Your task to perform on an android device: What's on my calendar today? Image 0: 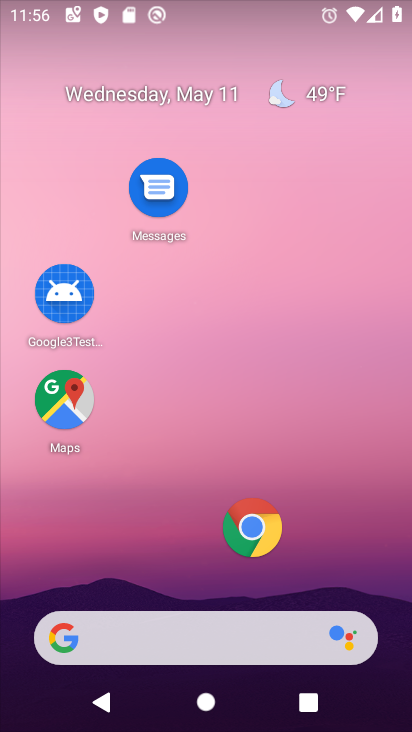
Step 0: drag from (274, 582) to (192, 31)
Your task to perform on an android device: What's on my calendar today? Image 1: 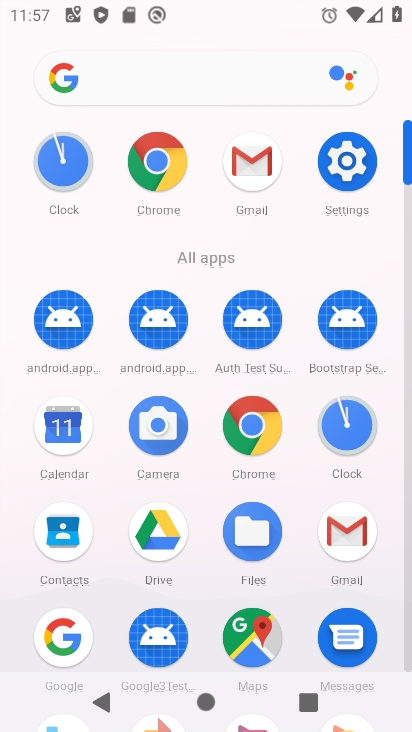
Step 1: click (66, 429)
Your task to perform on an android device: What's on my calendar today? Image 2: 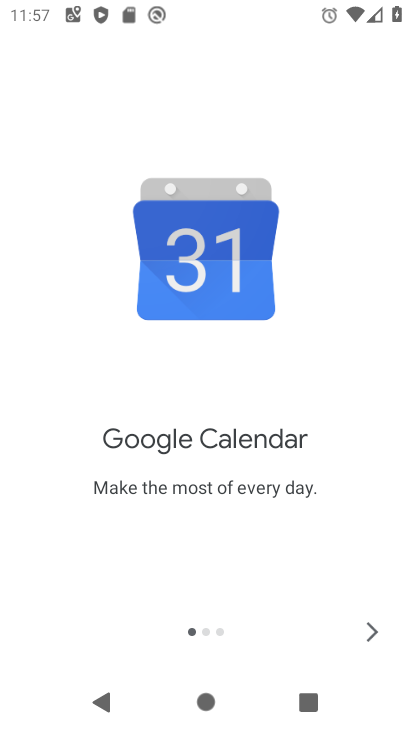
Step 2: click (368, 629)
Your task to perform on an android device: What's on my calendar today? Image 3: 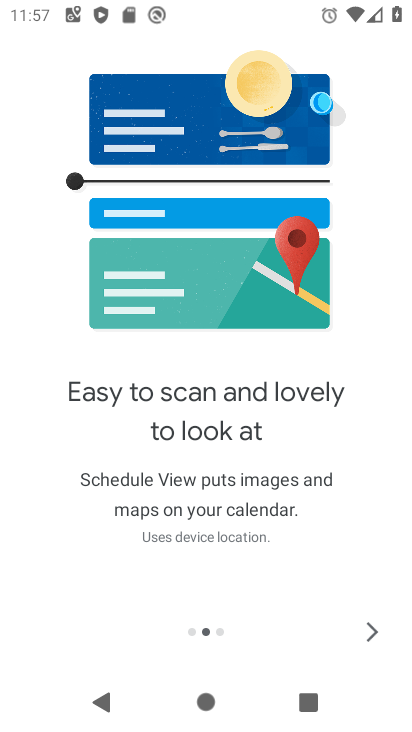
Step 3: click (373, 638)
Your task to perform on an android device: What's on my calendar today? Image 4: 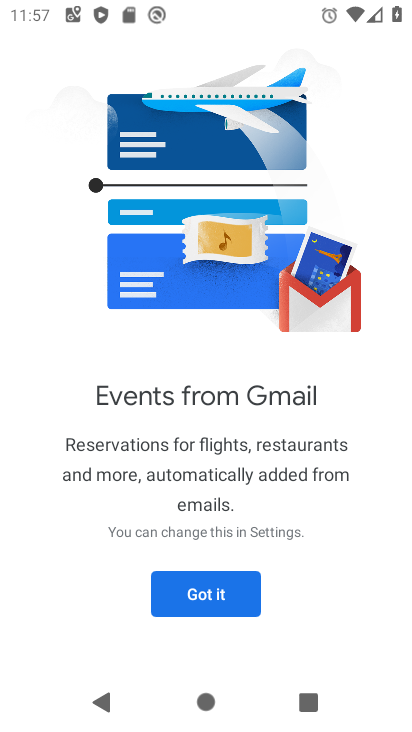
Step 4: click (207, 609)
Your task to perform on an android device: What's on my calendar today? Image 5: 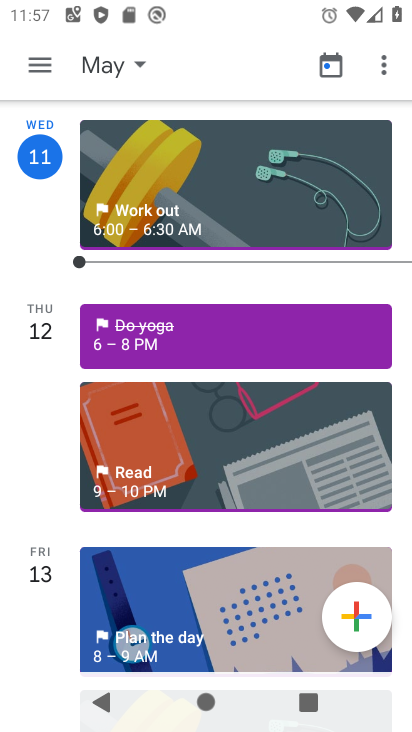
Step 5: click (44, 147)
Your task to perform on an android device: What's on my calendar today? Image 6: 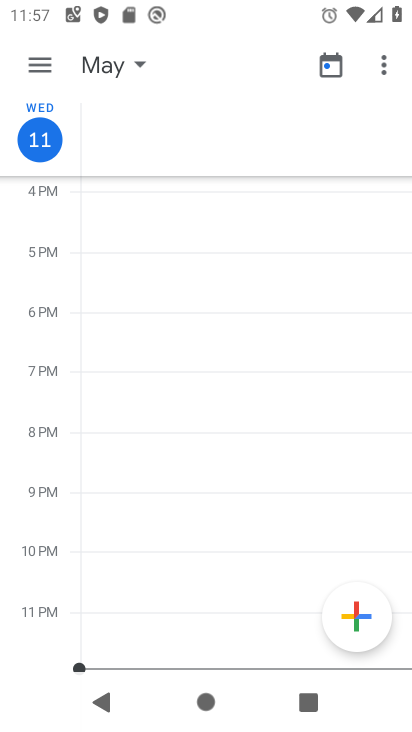
Step 6: task complete